Your task to perform on an android device: Clear all items from cart on newegg.com. Search for usb-b on newegg.com, select the first entry, add it to the cart, then select checkout. Image 0: 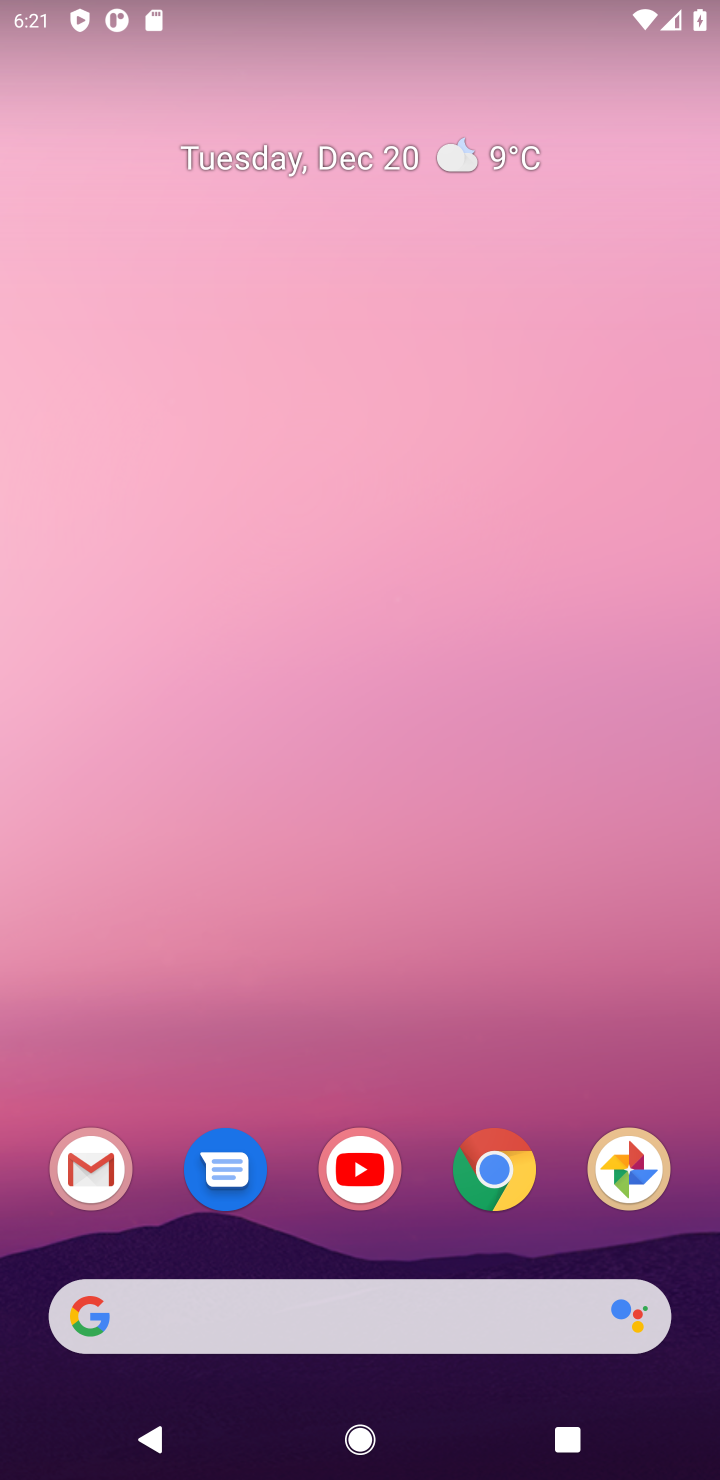
Step 0: click (529, 1170)
Your task to perform on an android device: Clear all items from cart on newegg.com. Search for usb-b on newegg.com, select the first entry, add it to the cart, then select checkout. Image 1: 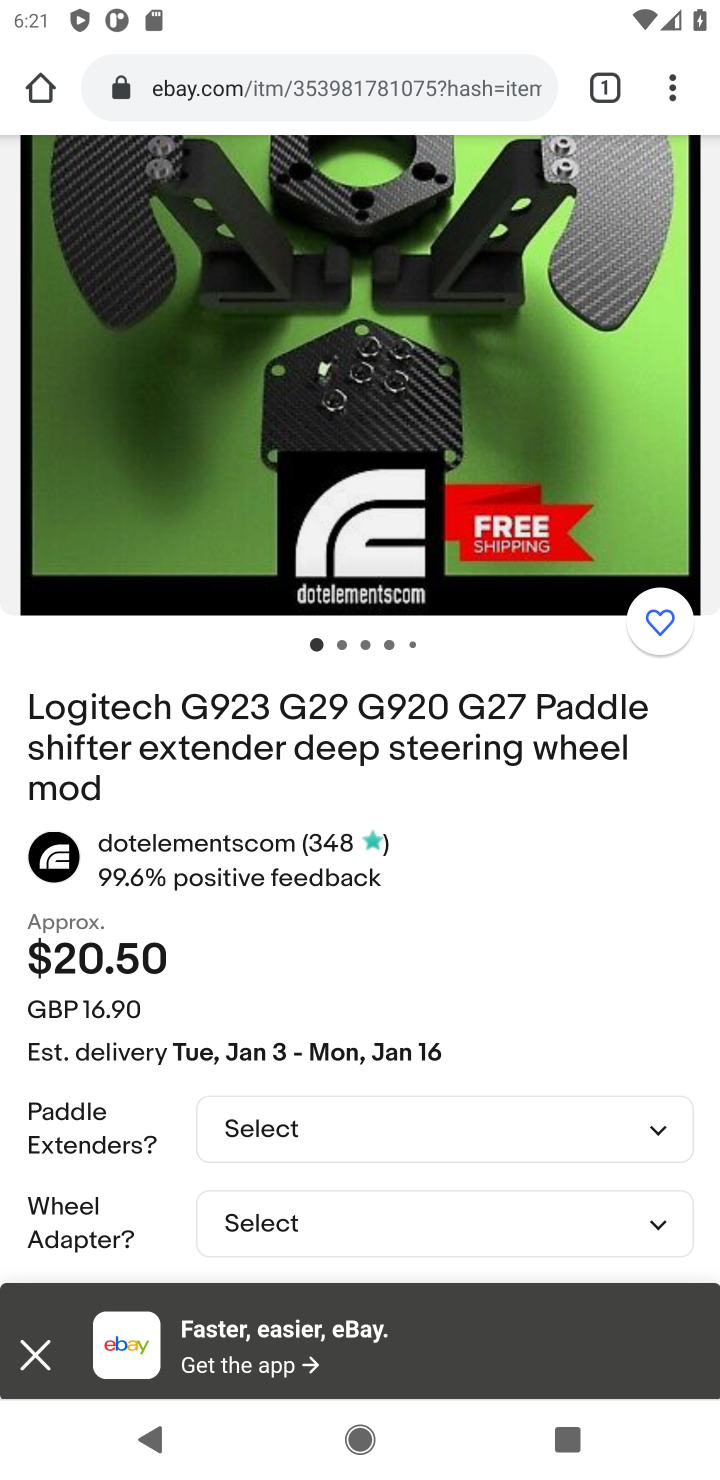
Step 1: click (297, 90)
Your task to perform on an android device: Clear all items from cart on newegg.com. Search for usb-b on newegg.com, select the first entry, add it to the cart, then select checkout. Image 2: 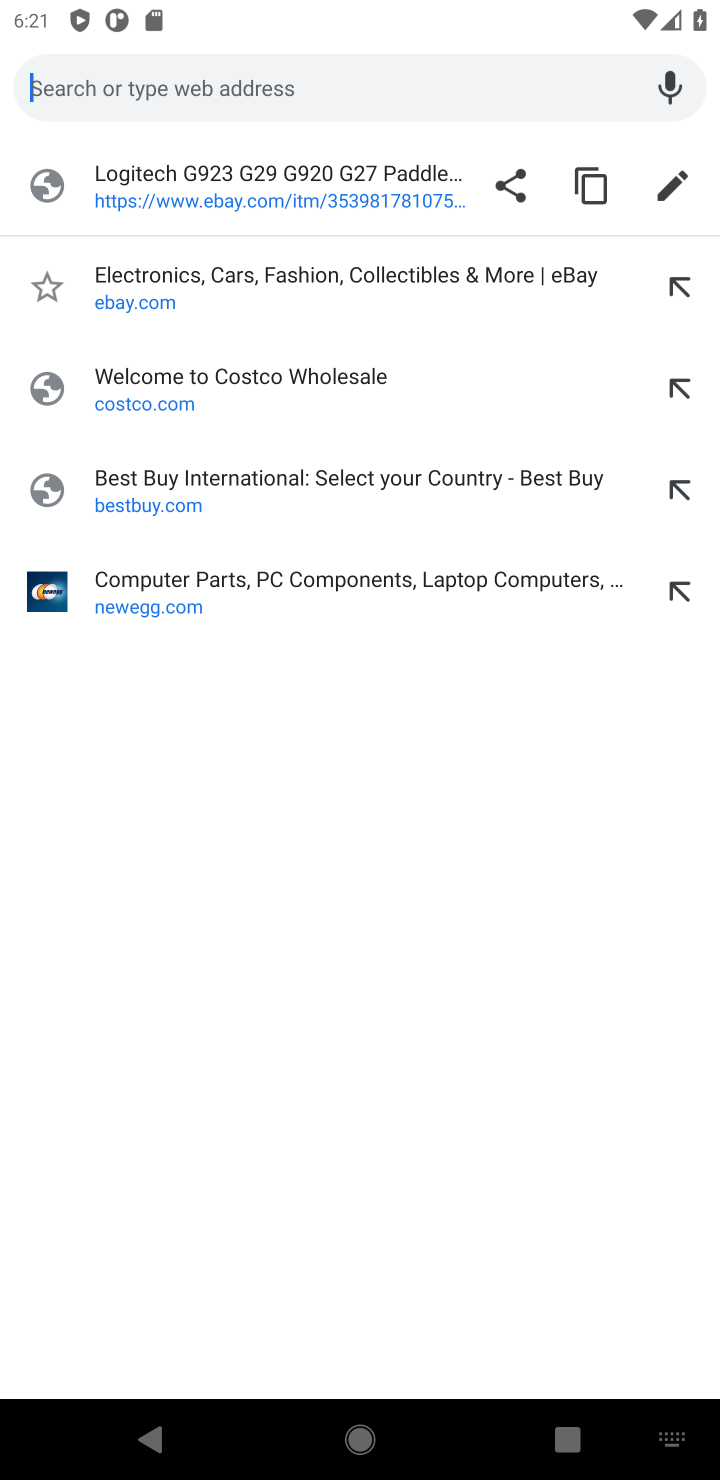
Step 2: type "newegg"
Your task to perform on an android device: Clear all items from cart on newegg.com. Search for usb-b on newegg.com, select the first entry, add it to the cart, then select checkout. Image 3: 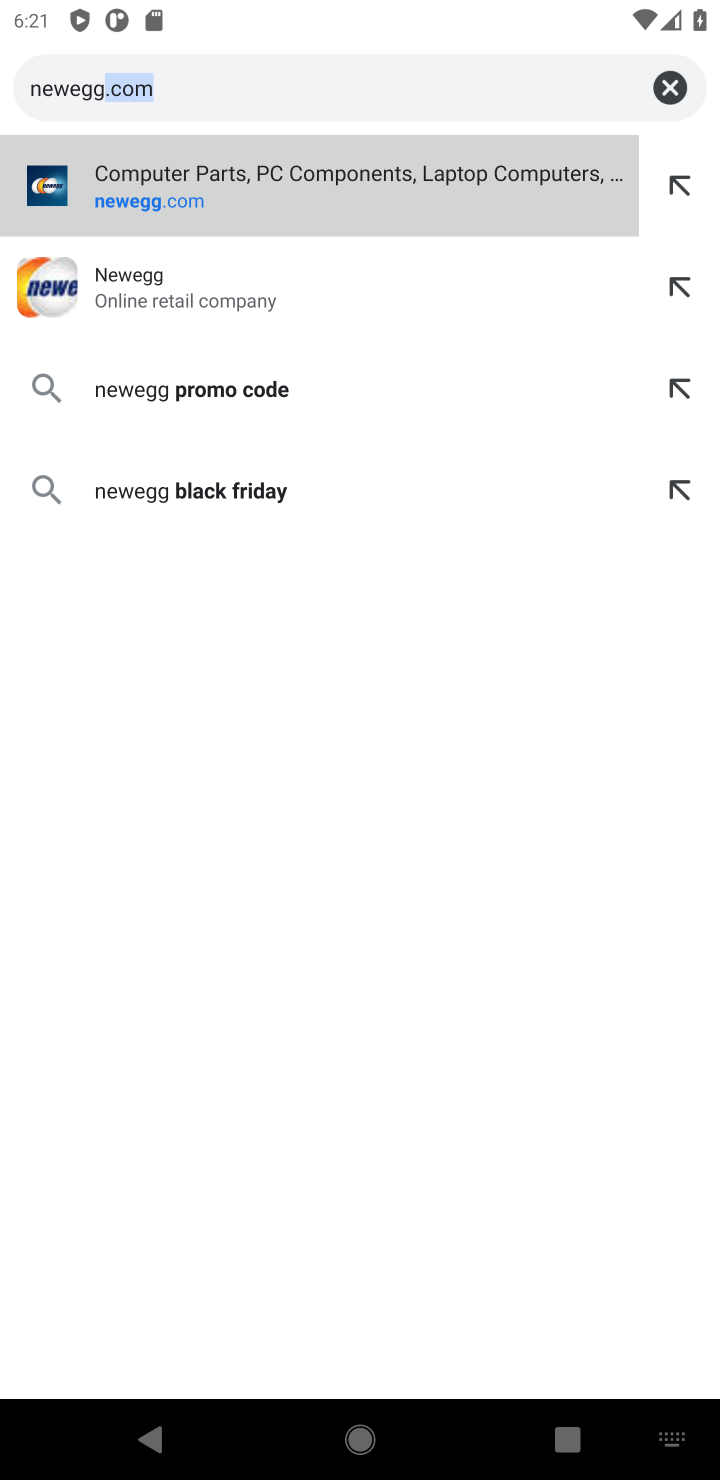
Step 3: click (102, 220)
Your task to perform on an android device: Clear all items from cart on newegg.com. Search for usb-b on newegg.com, select the first entry, add it to the cart, then select checkout. Image 4: 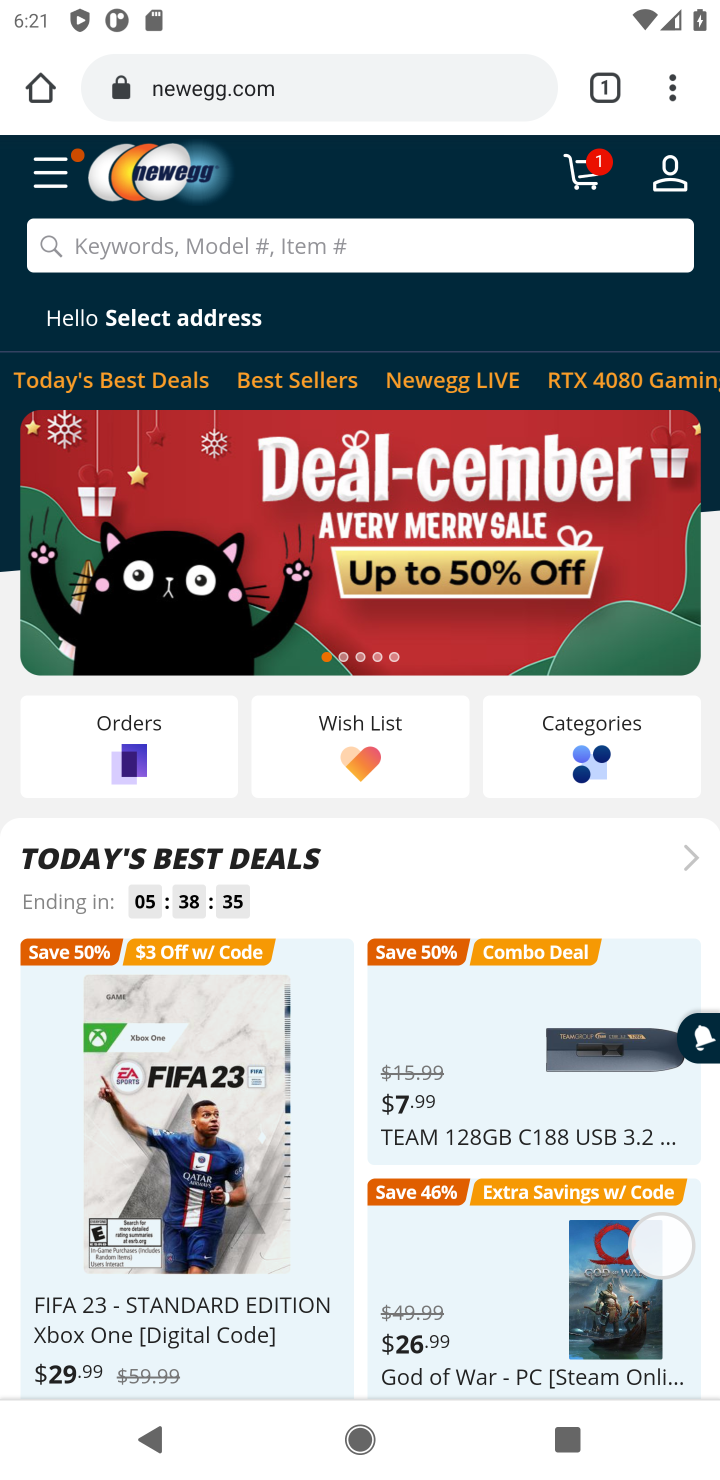
Step 4: click (203, 221)
Your task to perform on an android device: Clear all items from cart on newegg.com. Search for usb-b on newegg.com, select the first entry, add it to the cart, then select checkout. Image 5: 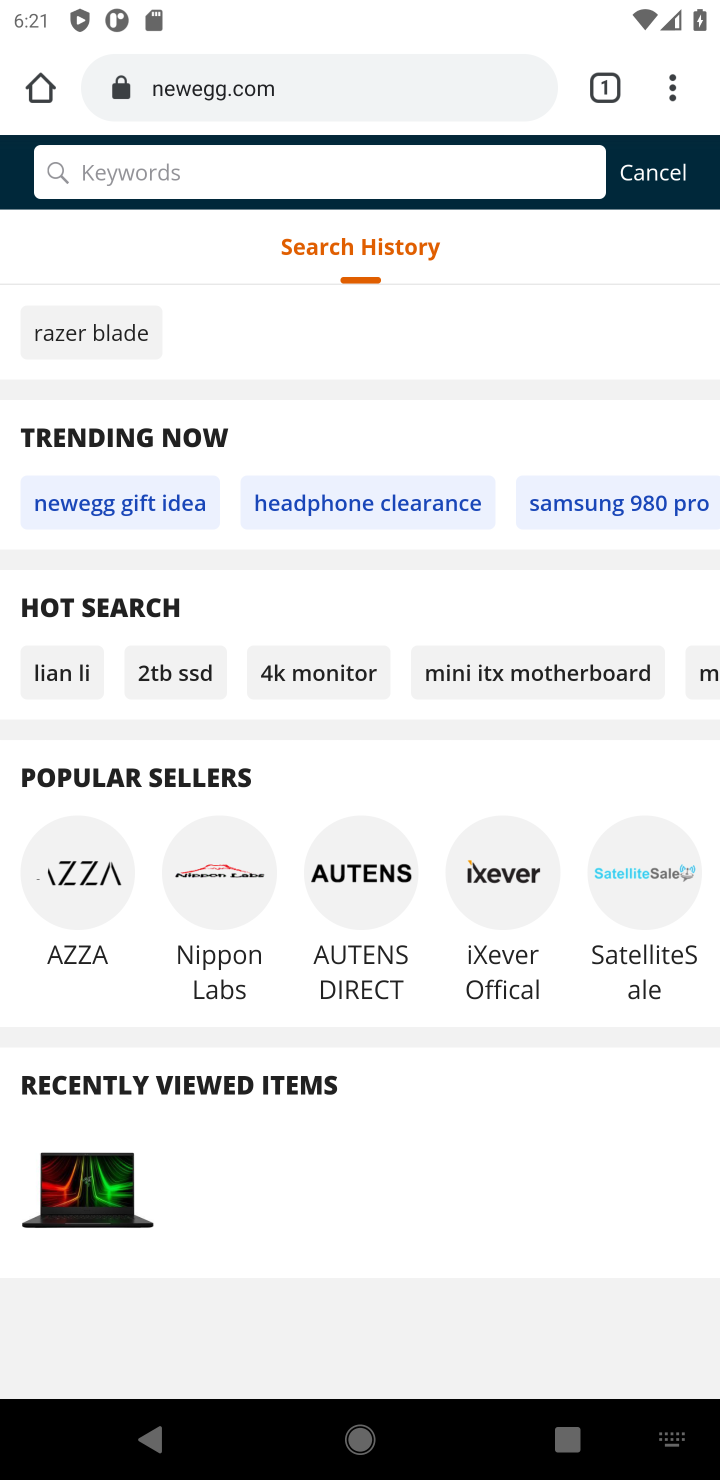
Step 5: type "usb-b"
Your task to perform on an android device: Clear all items from cart on newegg.com. Search for usb-b on newegg.com, select the first entry, add it to the cart, then select checkout. Image 6: 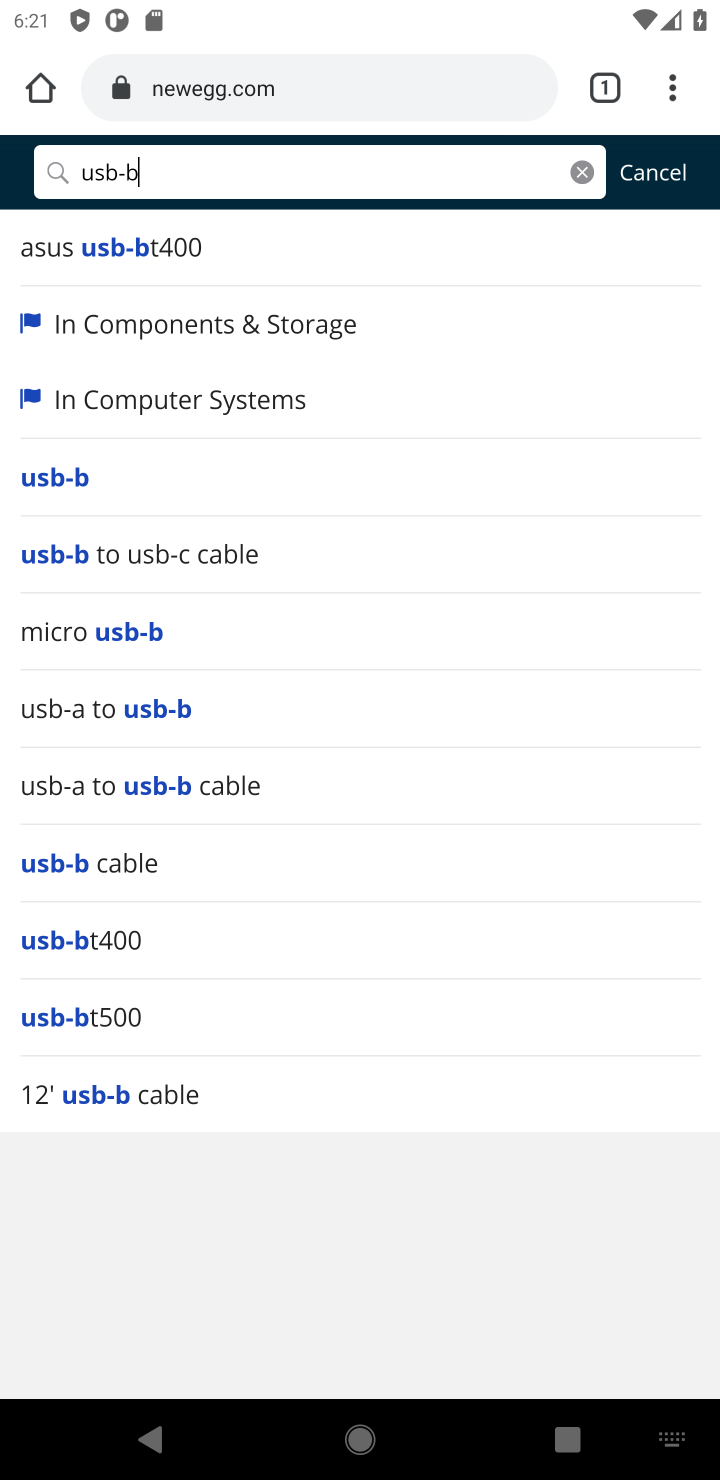
Step 6: click (59, 503)
Your task to perform on an android device: Clear all items from cart on newegg.com. Search for usb-b on newegg.com, select the first entry, add it to the cart, then select checkout. Image 7: 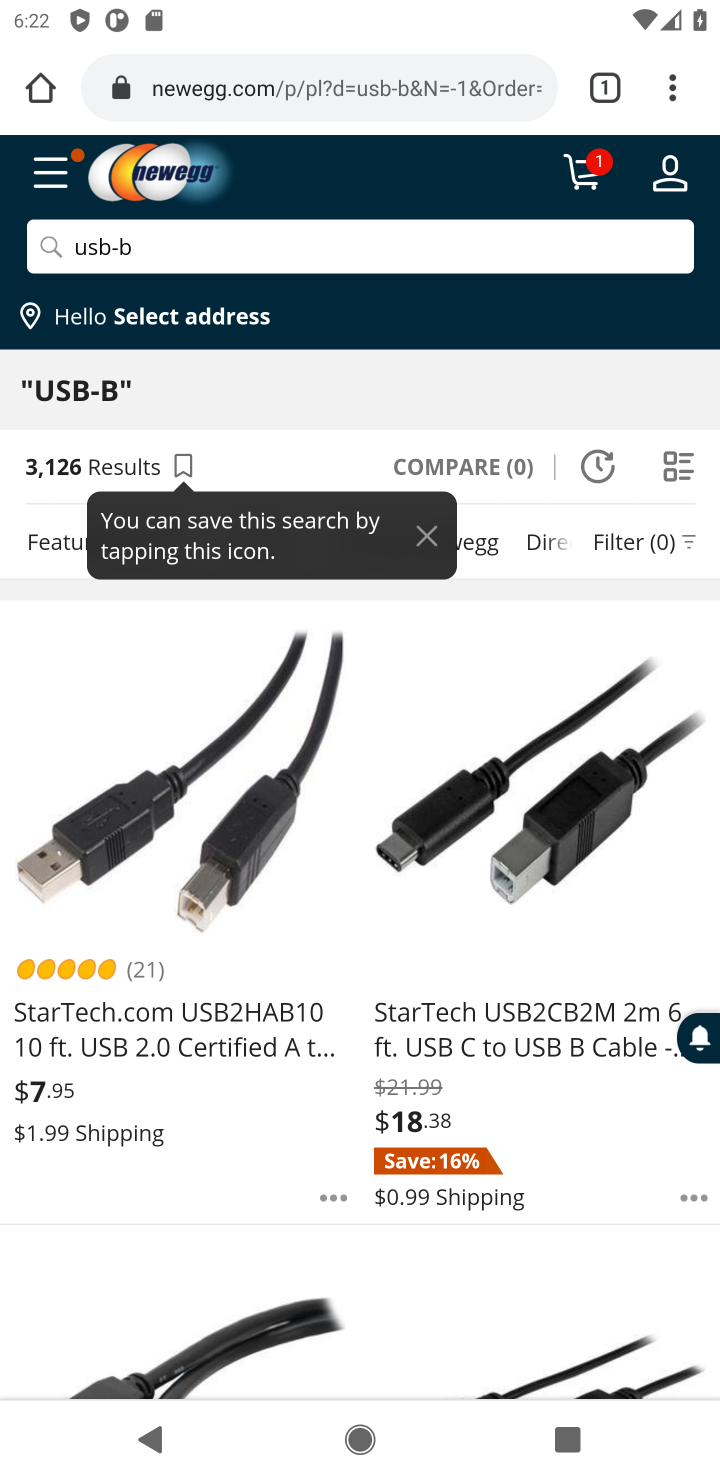
Step 7: click (154, 996)
Your task to perform on an android device: Clear all items from cart on newegg.com. Search for usb-b on newegg.com, select the first entry, add it to the cart, then select checkout. Image 8: 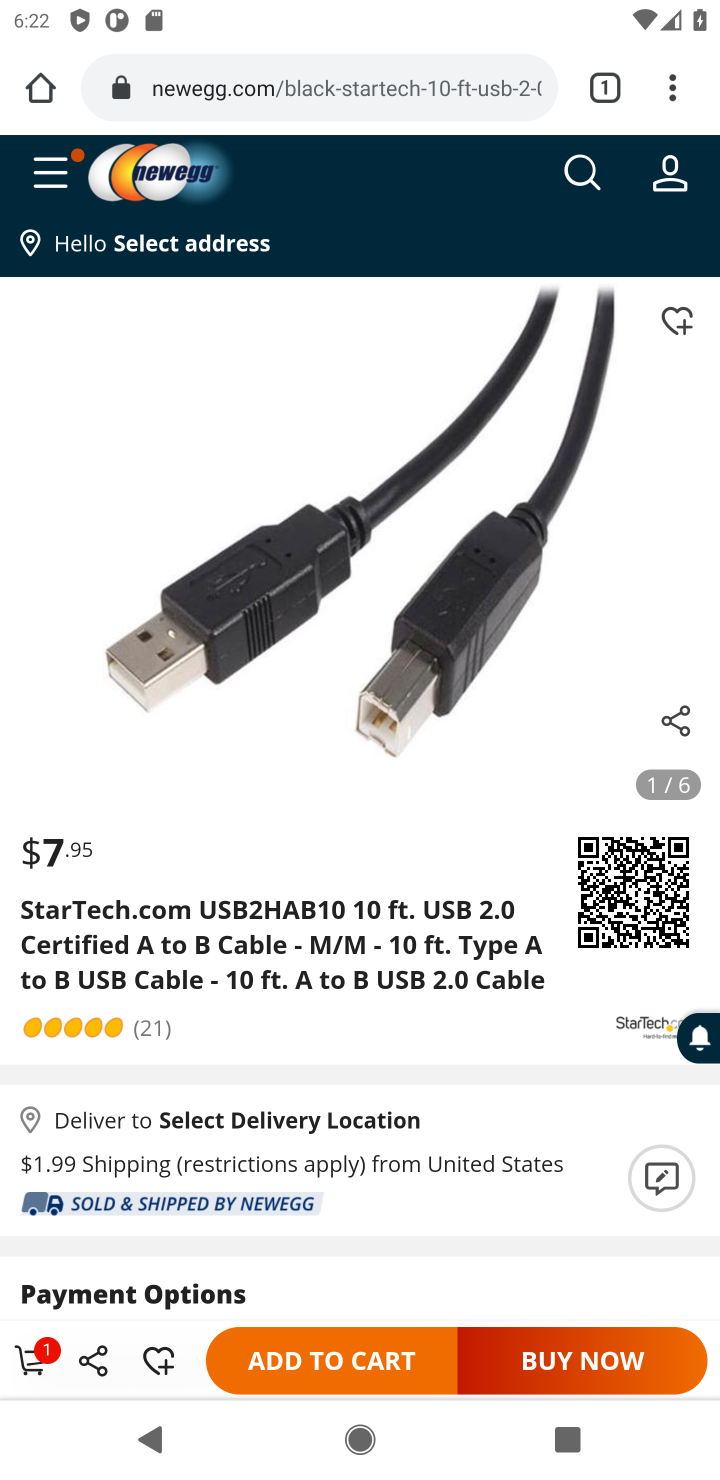
Step 8: click (266, 1363)
Your task to perform on an android device: Clear all items from cart on newegg.com. Search for usb-b on newegg.com, select the first entry, add it to the cart, then select checkout. Image 9: 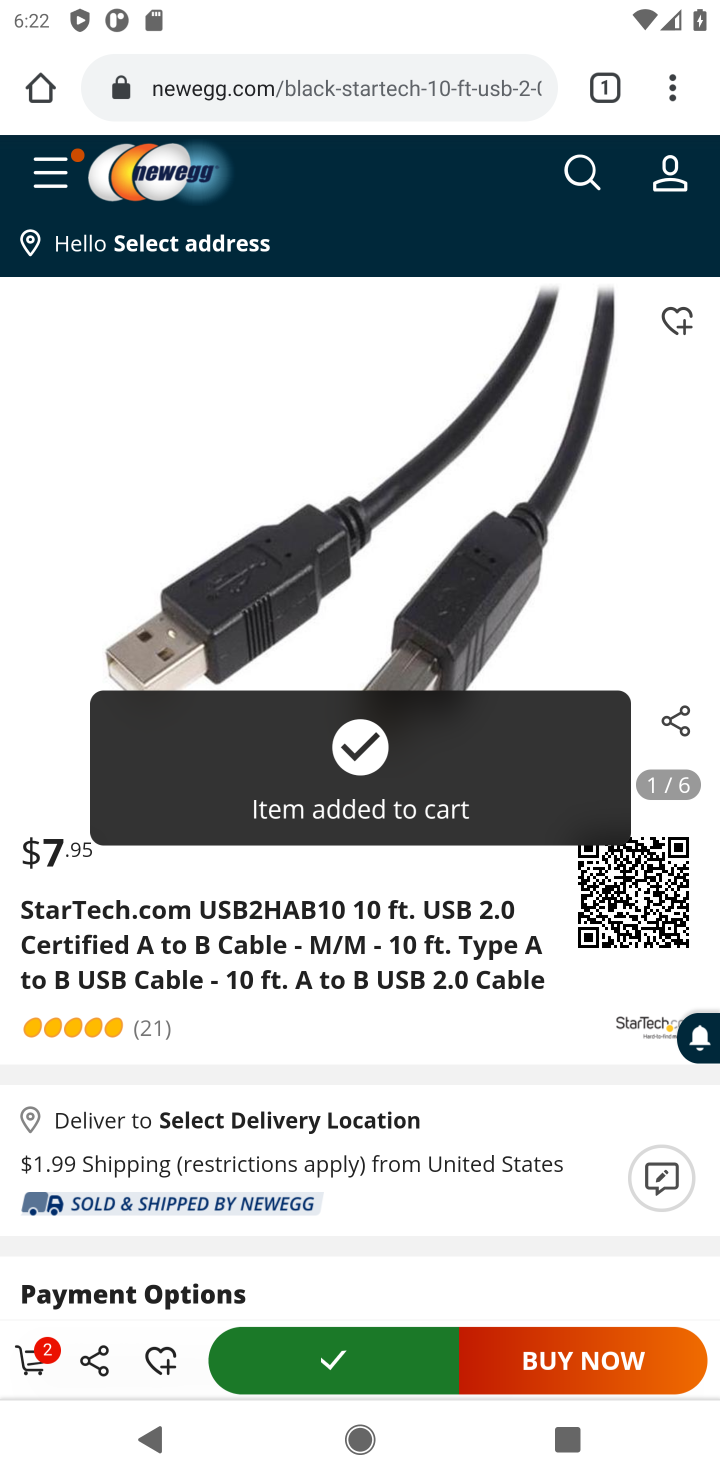
Step 9: task complete